Your task to perform on an android device: What's the news this week? Image 0: 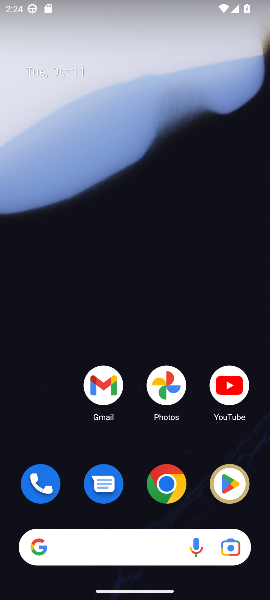
Step 0: press home button
Your task to perform on an android device: What's the news this week? Image 1: 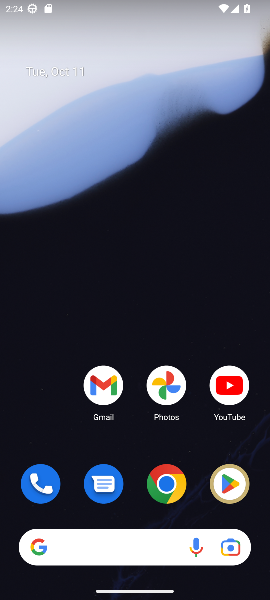
Step 1: drag from (68, 433) to (57, 52)
Your task to perform on an android device: What's the news this week? Image 2: 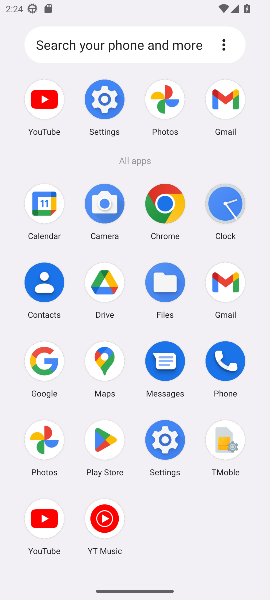
Step 2: click (38, 365)
Your task to perform on an android device: What's the news this week? Image 3: 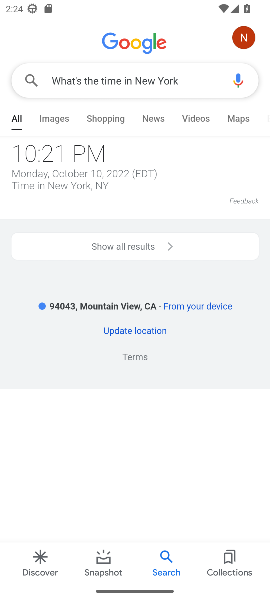
Step 3: click (185, 78)
Your task to perform on an android device: What's the news this week? Image 4: 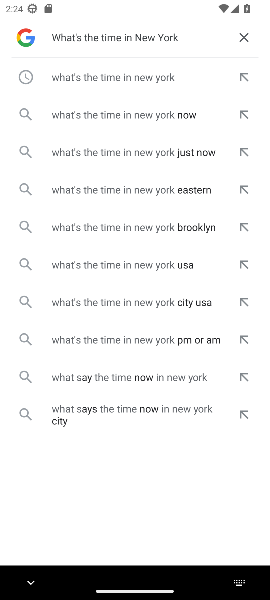
Step 4: click (241, 36)
Your task to perform on an android device: What's the news this week? Image 5: 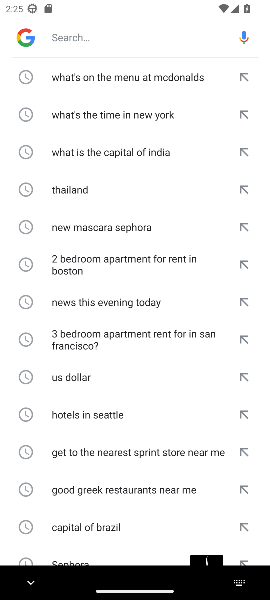
Step 5: type "What's the news this week"
Your task to perform on an android device: What's the news this week? Image 6: 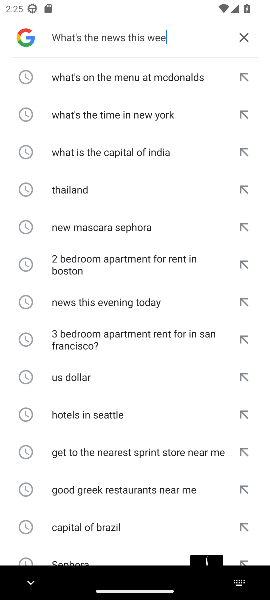
Step 6: press enter
Your task to perform on an android device: What's the news this week? Image 7: 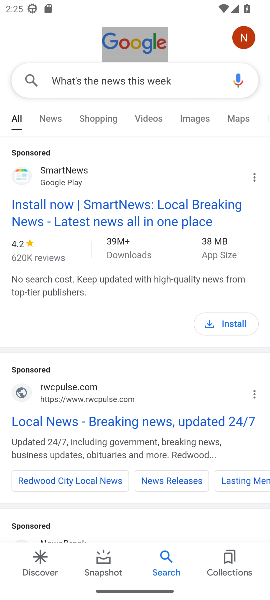
Step 7: drag from (171, 451) to (162, 244)
Your task to perform on an android device: What's the news this week? Image 8: 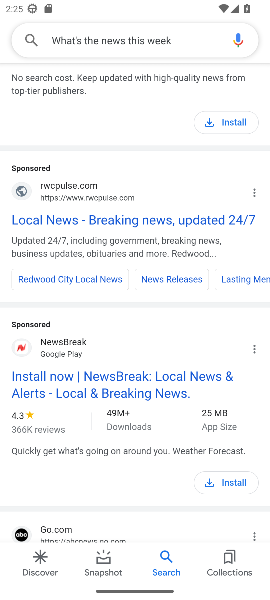
Step 8: drag from (140, 447) to (137, 210)
Your task to perform on an android device: What's the news this week? Image 9: 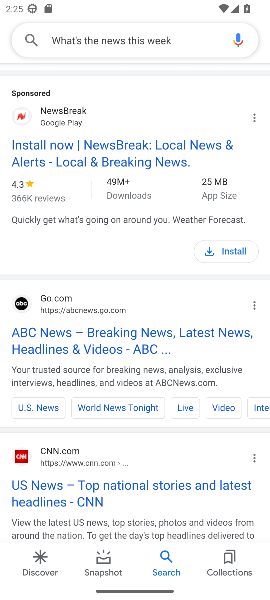
Step 9: drag from (150, 503) to (147, 284)
Your task to perform on an android device: What's the news this week? Image 10: 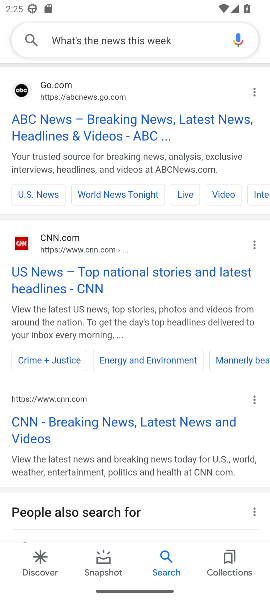
Step 10: click (85, 123)
Your task to perform on an android device: What's the news this week? Image 11: 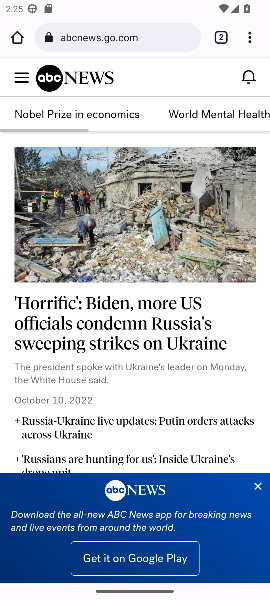
Step 11: click (256, 484)
Your task to perform on an android device: What's the news this week? Image 12: 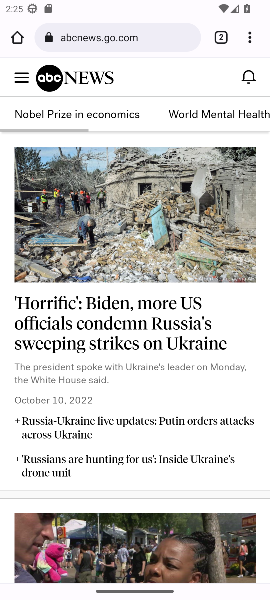
Step 12: task complete